Your task to perform on an android device: uninstall "Google Drive" Image 0: 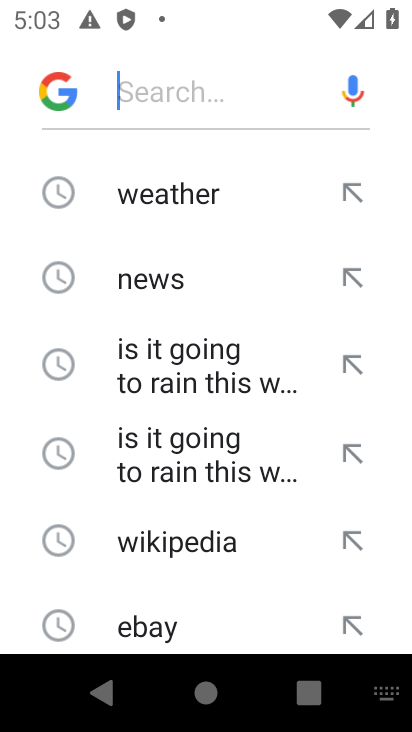
Step 0: press back button
Your task to perform on an android device: uninstall "Google Drive" Image 1: 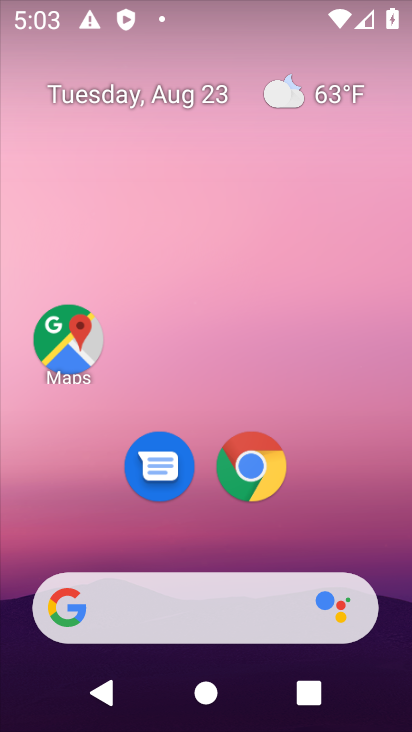
Step 1: drag from (207, 600) to (239, 38)
Your task to perform on an android device: uninstall "Google Drive" Image 2: 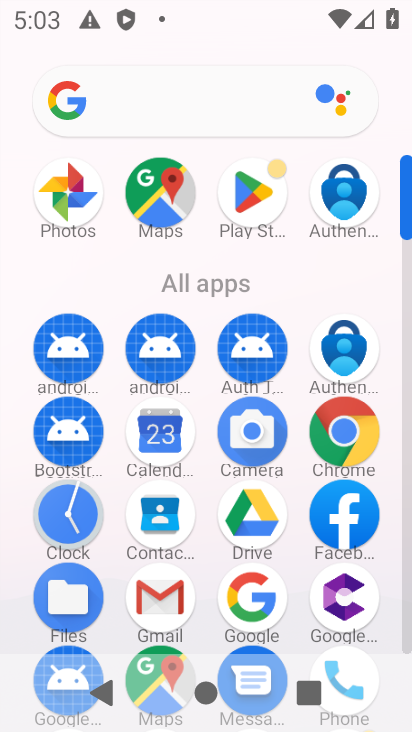
Step 2: click (241, 198)
Your task to perform on an android device: uninstall "Google Drive" Image 3: 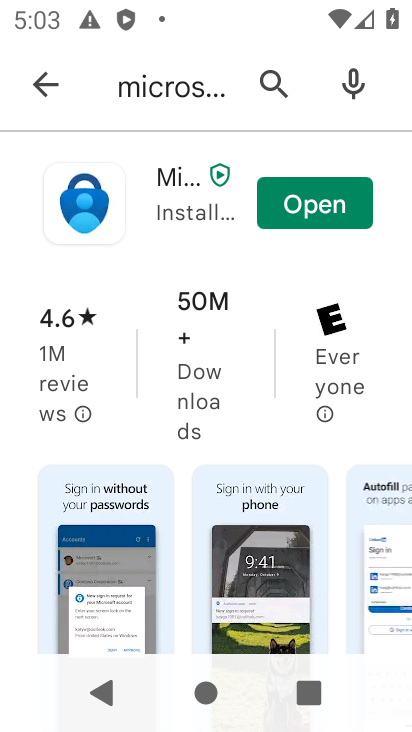
Step 3: click (270, 90)
Your task to perform on an android device: uninstall "Google Drive" Image 4: 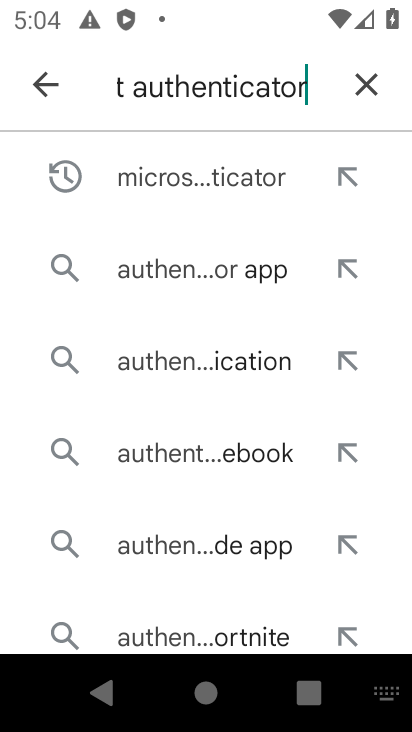
Step 4: click (368, 78)
Your task to perform on an android device: uninstall "Google Drive" Image 5: 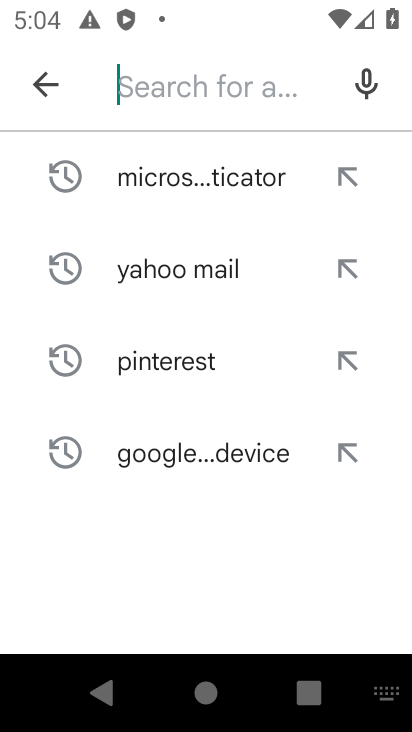
Step 5: type "google drive"
Your task to perform on an android device: uninstall "Google Drive" Image 6: 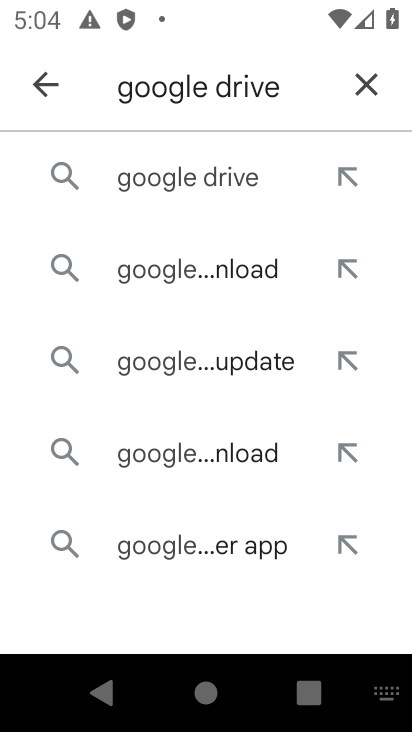
Step 6: click (207, 180)
Your task to perform on an android device: uninstall "Google Drive" Image 7: 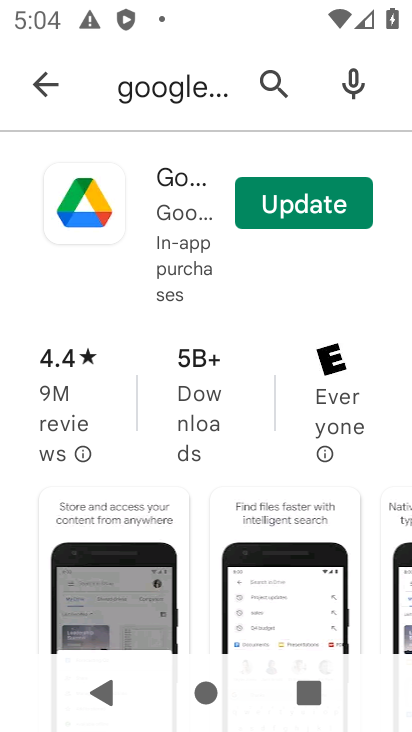
Step 7: task complete